Your task to perform on an android device: toggle javascript in the chrome app Image 0: 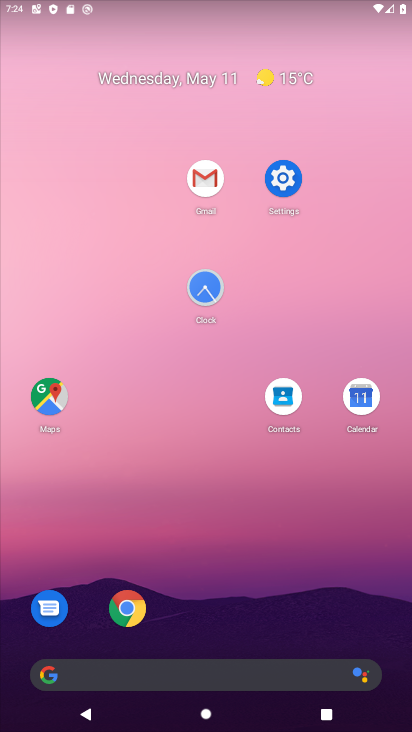
Step 0: click (121, 615)
Your task to perform on an android device: toggle javascript in the chrome app Image 1: 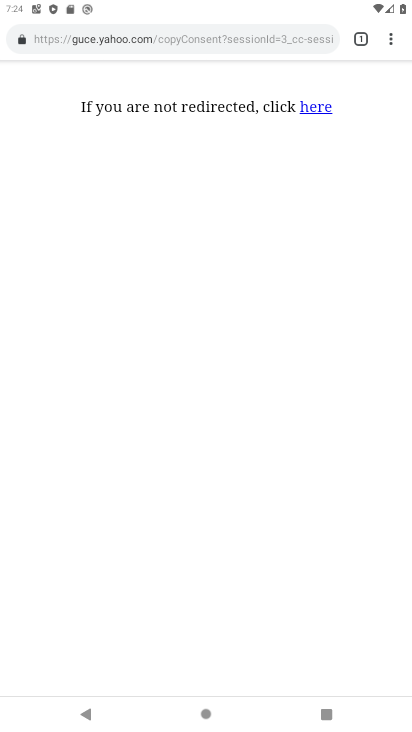
Step 1: click (401, 40)
Your task to perform on an android device: toggle javascript in the chrome app Image 2: 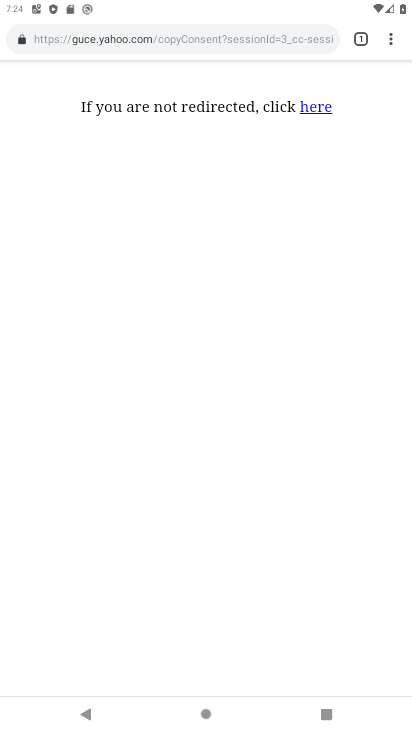
Step 2: click (388, 46)
Your task to perform on an android device: toggle javascript in the chrome app Image 3: 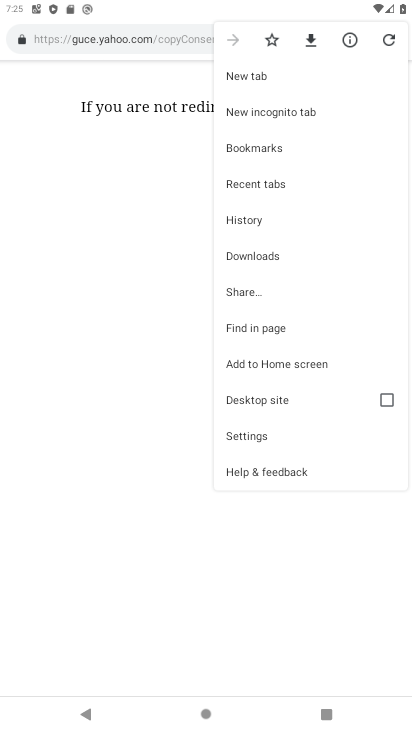
Step 3: click (264, 429)
Your task to perform on an android device: toggle javascript in the chrome app Image 4: 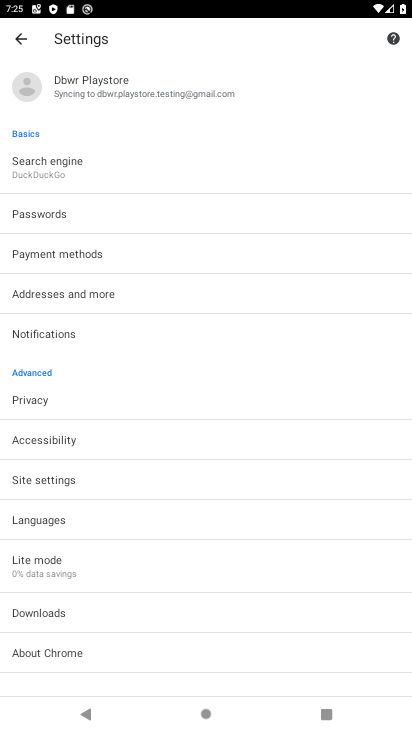
Step 4: click (169, 493)
Your task to perform on an android device: toggle javascript in the chrome app Image 5: 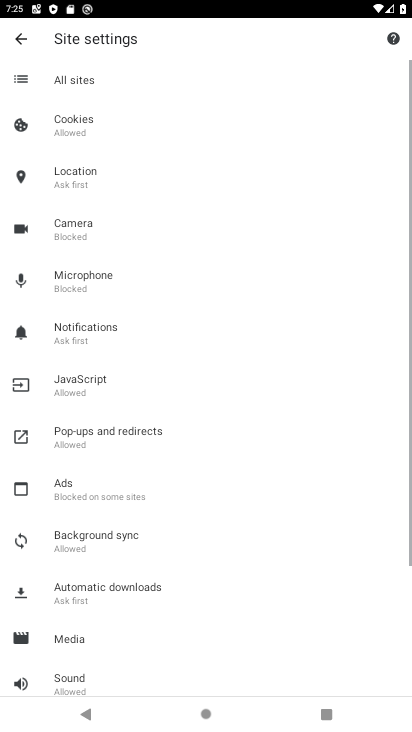
Step 5: drag from (158, 616) to (214, 320)
Your task to perform on an android device: toggle javascript in the chrome app Image 6: 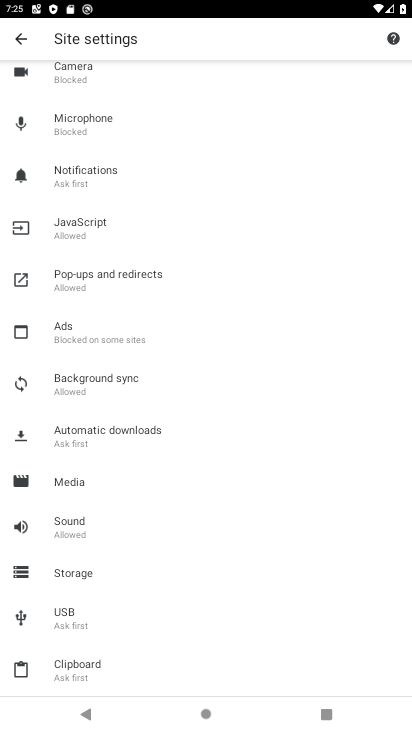
Step 6: click (98, 229)
Your task to perform on an android device: toggle javascript in the chrome app Image 7: 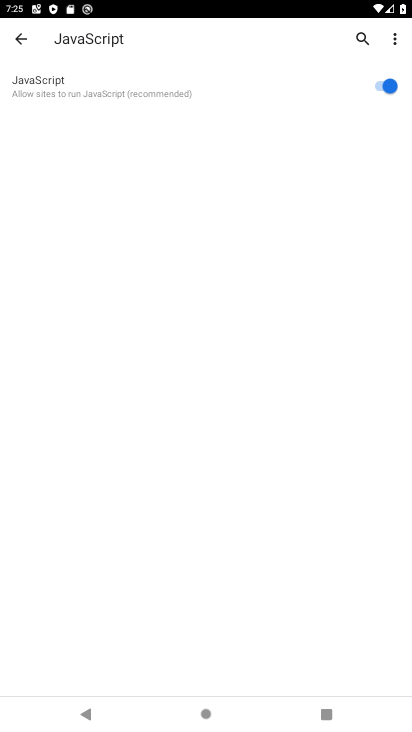
Step 7: click (376, 94)
Your task to perform on an android device: toggle javascript in the chrome app Image 8: 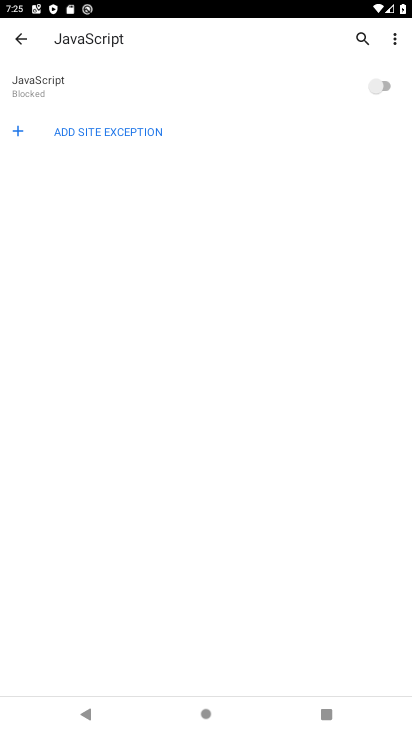
Step 8: task complete